Your task to perform on an android device: open app "VLC for Android" (install if not already installed) and go to login screen Image 0: 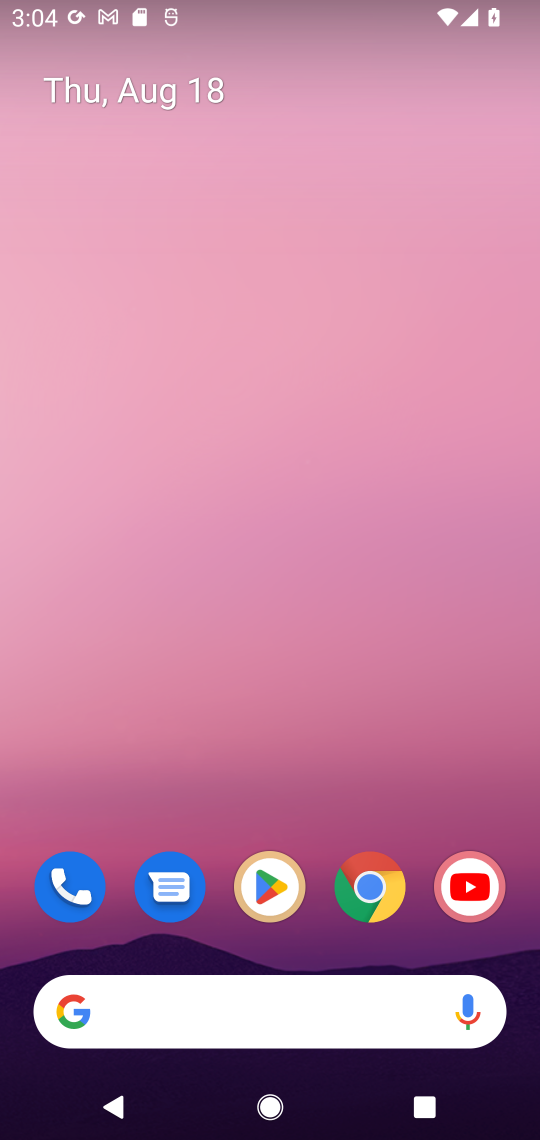
Step 0: click (263, 884)
Your task to perform on an android device: open app "VLC for Android" (install if not already installed) and go to login screen Image 1: 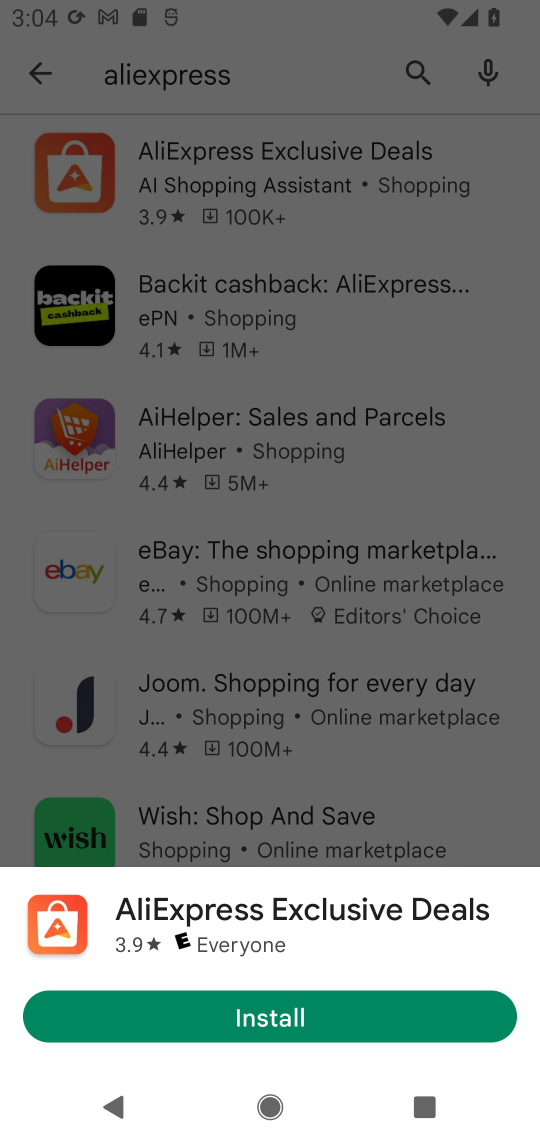
Step 1: click (102, 178)
Your task to perform on an android device: open app "VLC for Android" (install if not already installed) and go to login screen Image 2: 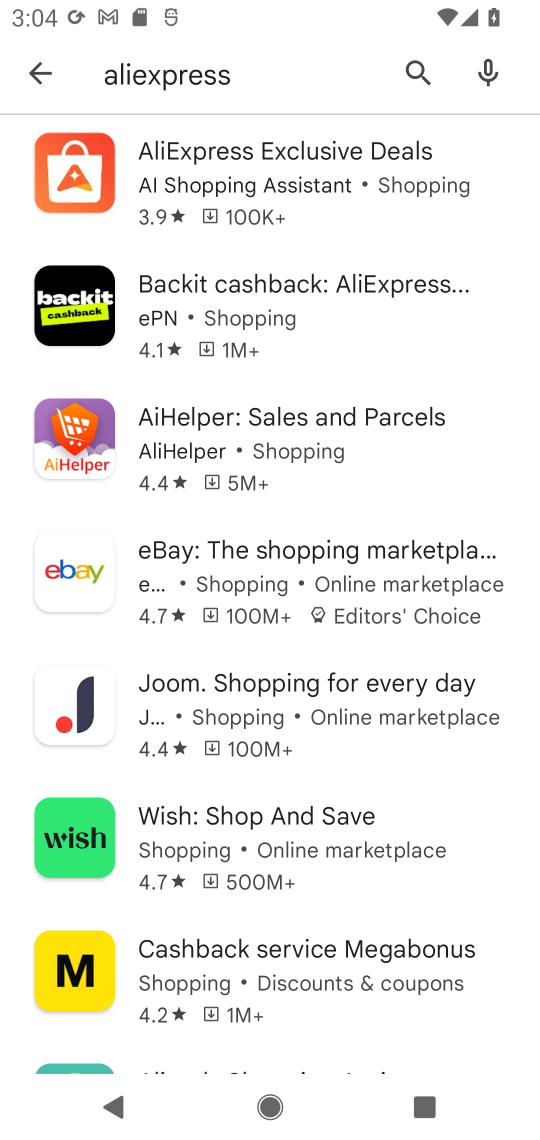
Step 2: click (405, 67)
Your task to perform on an android device: open app "VLC for Android" (install if not already installed) and go to login screen Image 3: 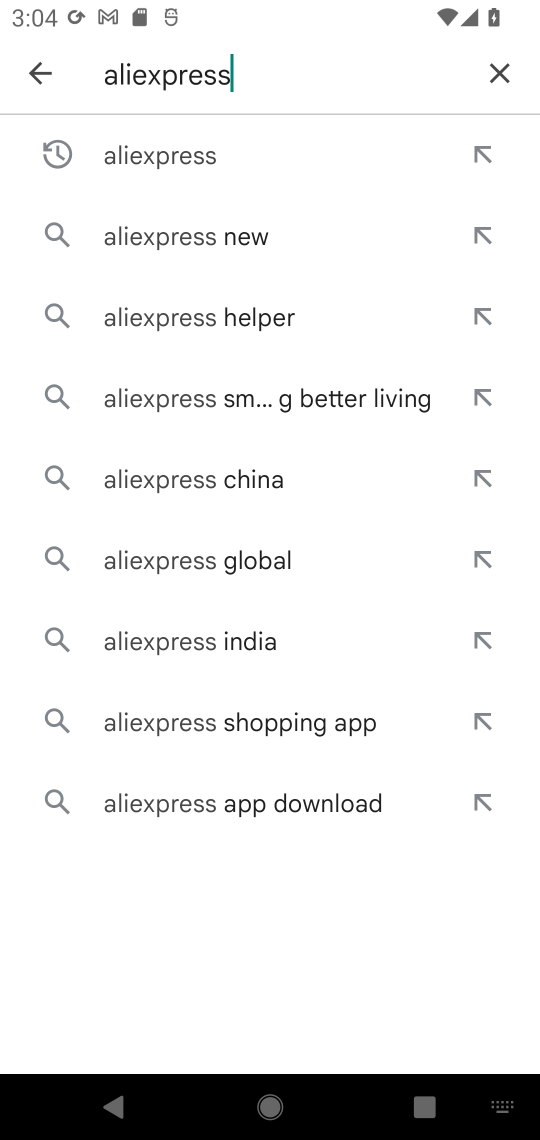
Step 3: click (496, 80)
Your task to perform on an android device: open app "VLC for Android" (install if not already installed) and go to login screen Image 4: 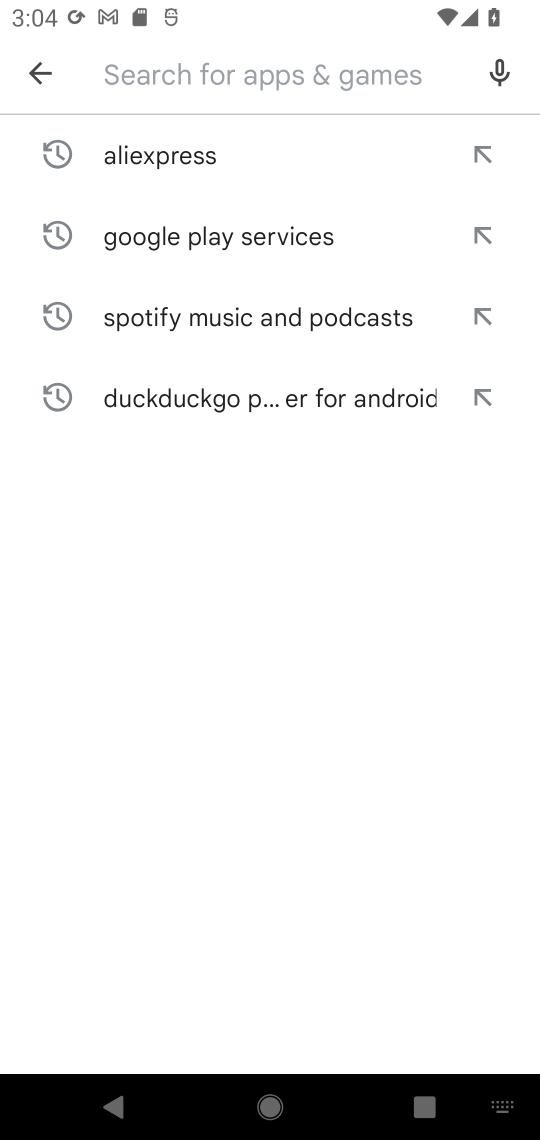
Step 4: type "VLC for Android"
Your task to perform on an android device: open app "VLC for Android" (install if not already installed) and go to login screen Image 5: 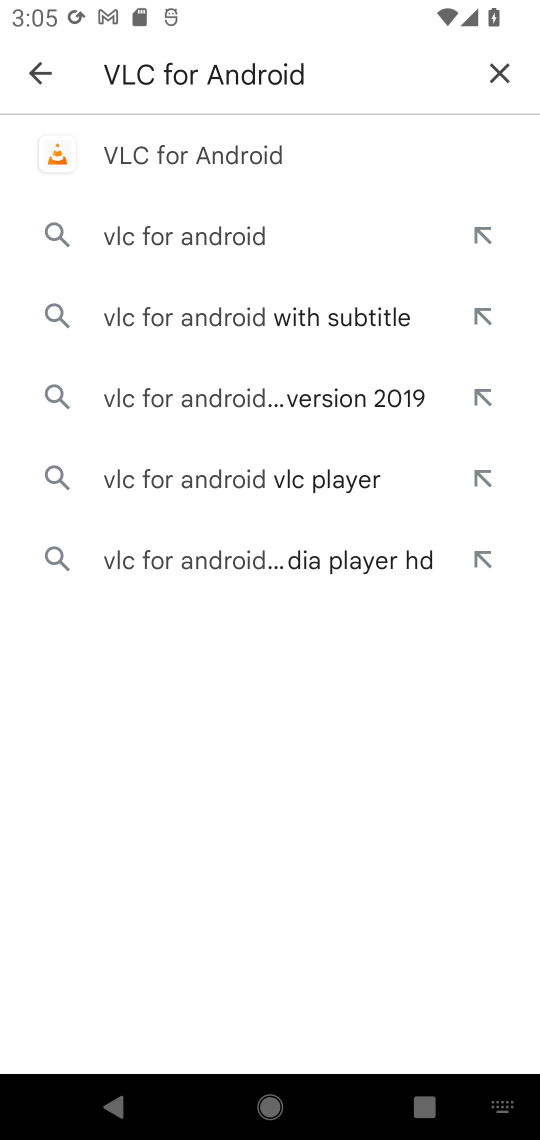
Step 5: click (226, 140)
Your task to perform on an android device: open app "VLC for Android" (install if not already installed) and go to login screen Image 6: 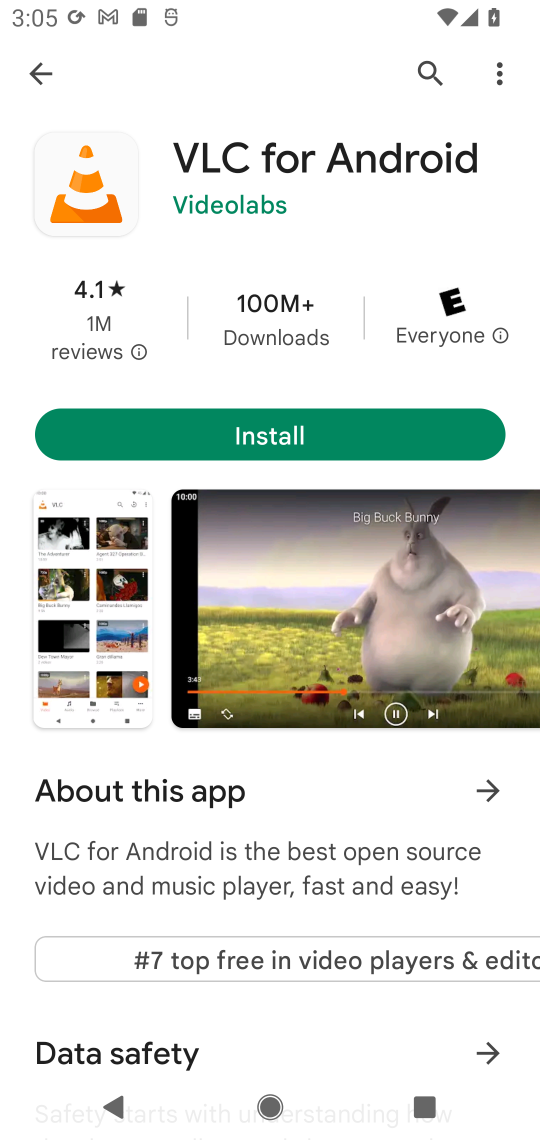
Step 6: click (339, 433)
Your task to perform on an android device: open app "VLC for Android" (install if not already installed) and go to login screen Image 7: 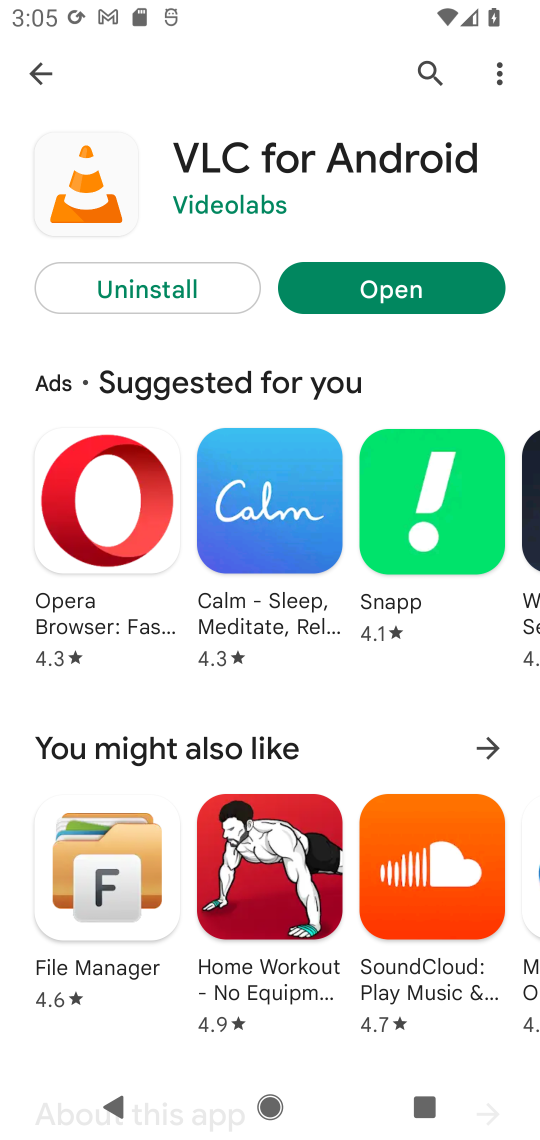
Step 7: click (387, 295)
Your task to perform on an android device: open app "VLC for Android" (install if not already installed) and go to login screen Image 8: 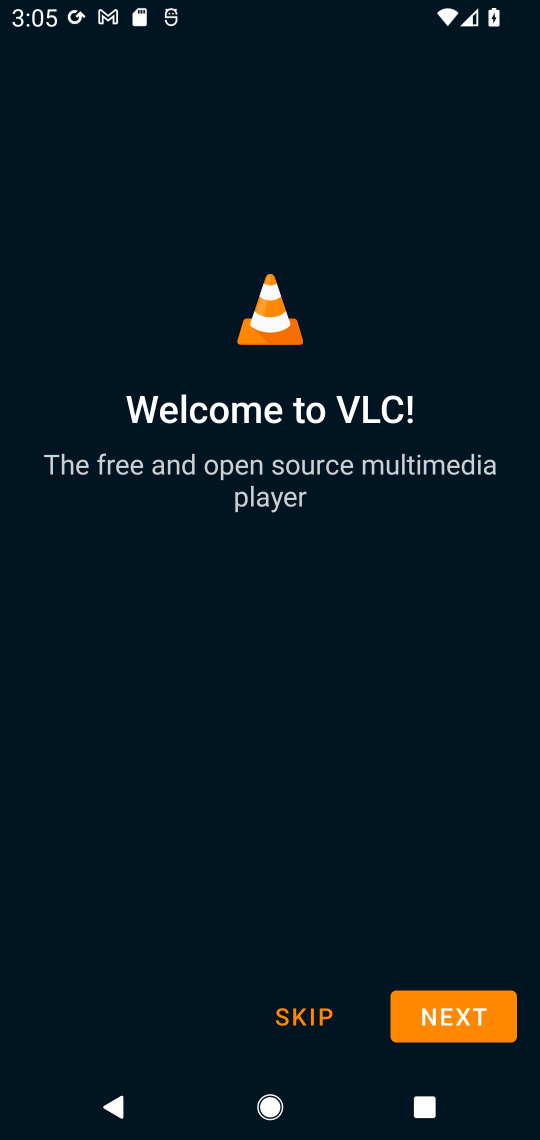
Step 8: click (299, 1014)
Your task to perform on an android device: open app "VLC for Android" (install if not already installed) and go to login screen Image 9: 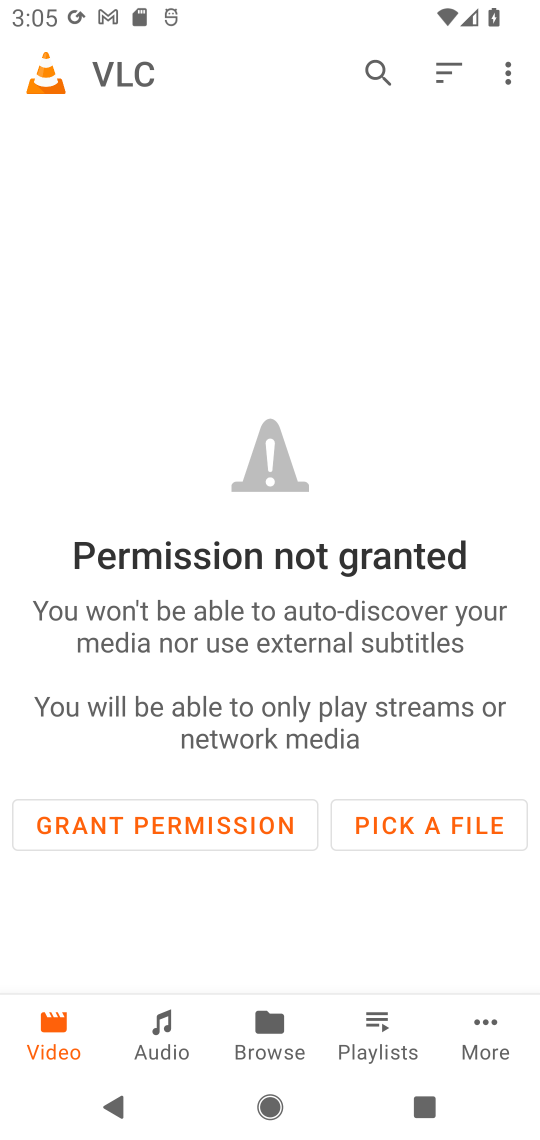
Step 9: click (43, 70)
Your task to perform on an android device: open app "VLC for Android" (install if not already installed) and go to login screen Image 10: 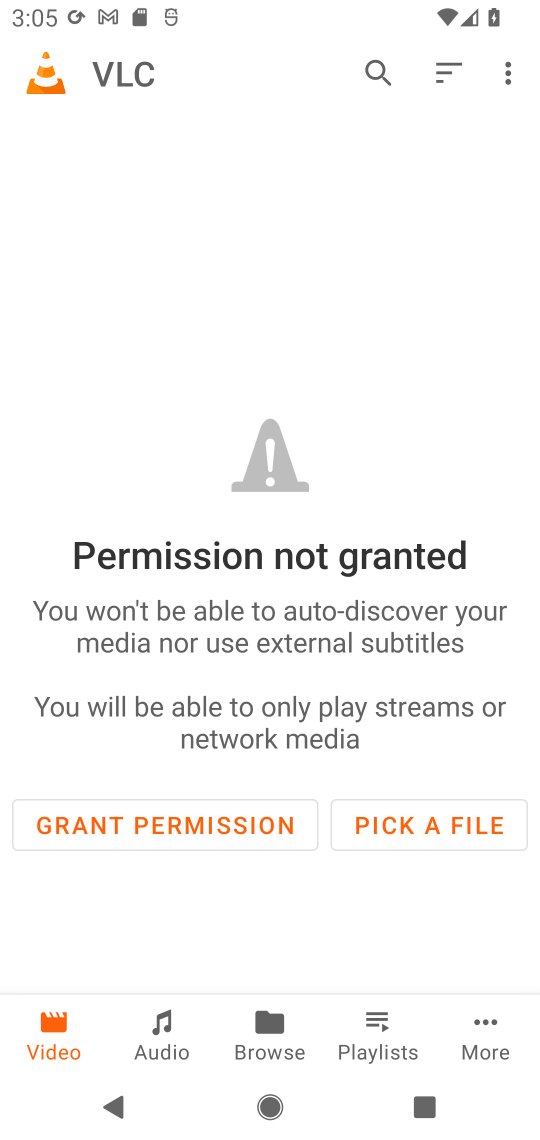
Step 10: click (513, 66)
Your task to perform on an android device: open app "VLC for Android" (install if not already installed) and go to login screen Image 11: 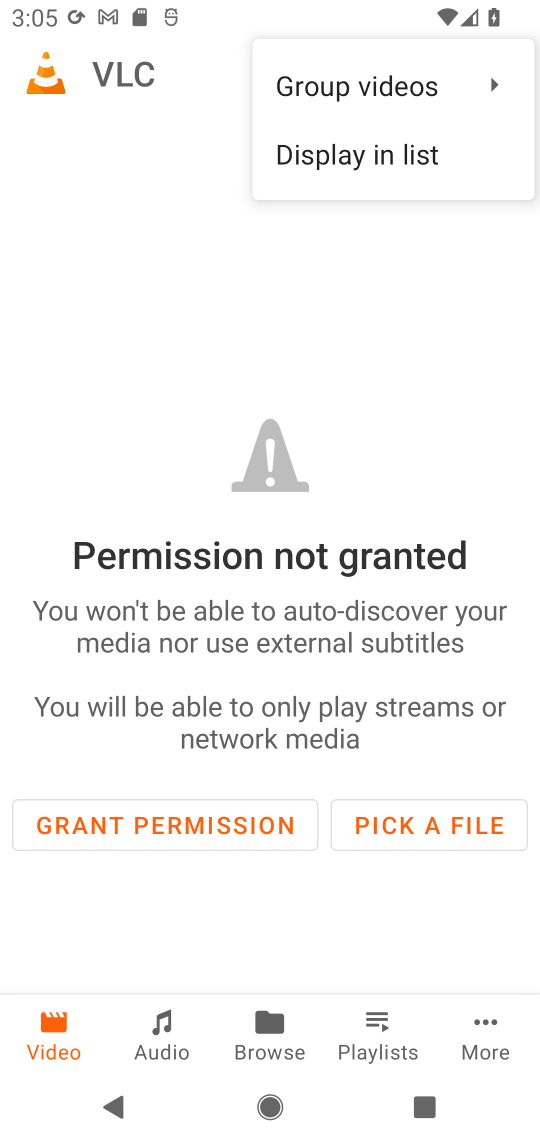
Step 11: click (488, 1024)
Your task to perform on an android device: open app "VLC for Android" (install if not already installed) and go to login screen Image 12: 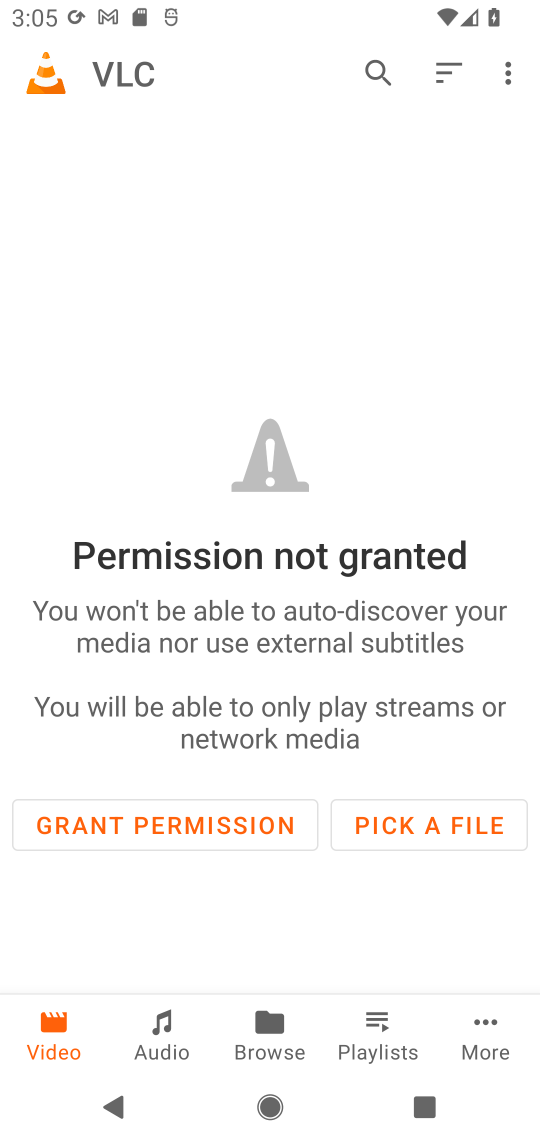
Step 12: click (486, 1029)
Your task to perform on an android device: open app "VLC for Android" (install if not already installed) and go to login screen Image 13: 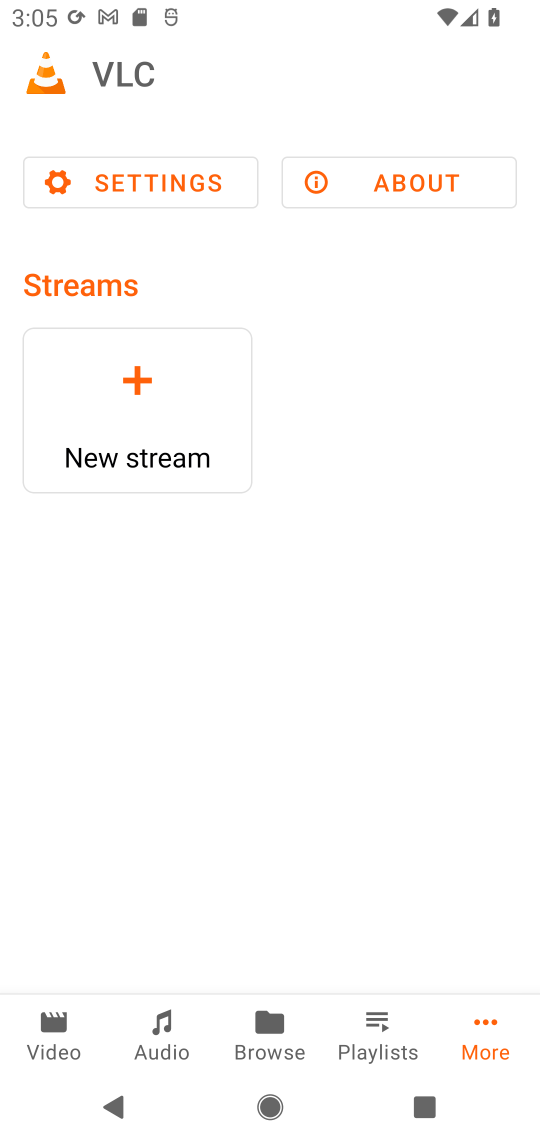
Step 13: click (58, 86)
Your task to perform on an android device: open app "VLC for Android" (install if not already installed) and go to login screen Image 14: 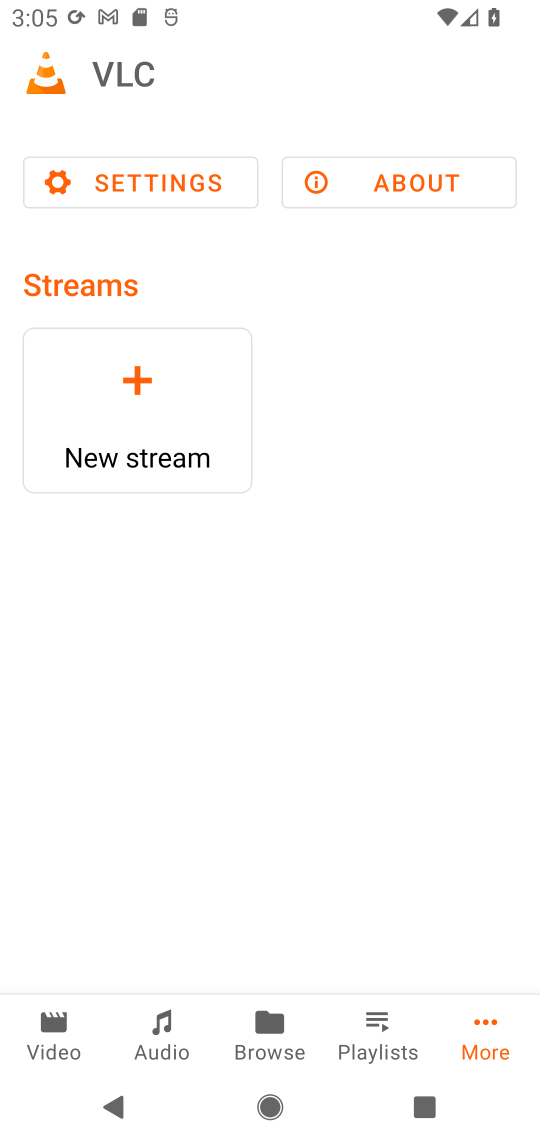
Step 14: task complete